Your task to perform on an android device: Open network settings Image 0: 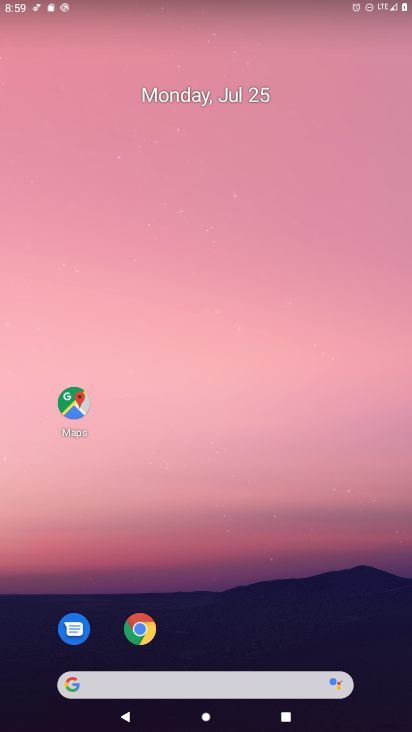
Step 0: drag from (180, 680) to (203, 0)
Your task to perform on an android device: Open network settings Image 1: 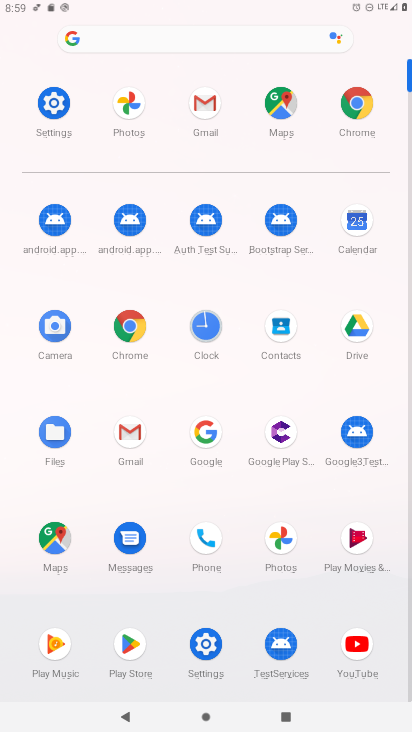
Step 1: click (53, 102)
Your task to perform on an android device: Open network settings Image 2: 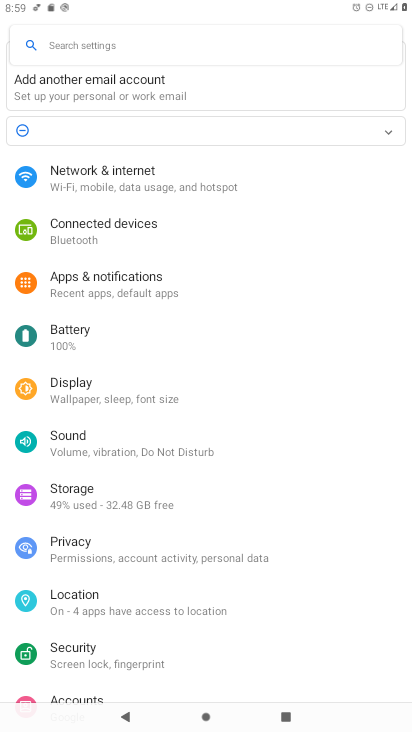
Step 2: task complete